Your task to perform on an android device: find photos in the google photos app Image 0: 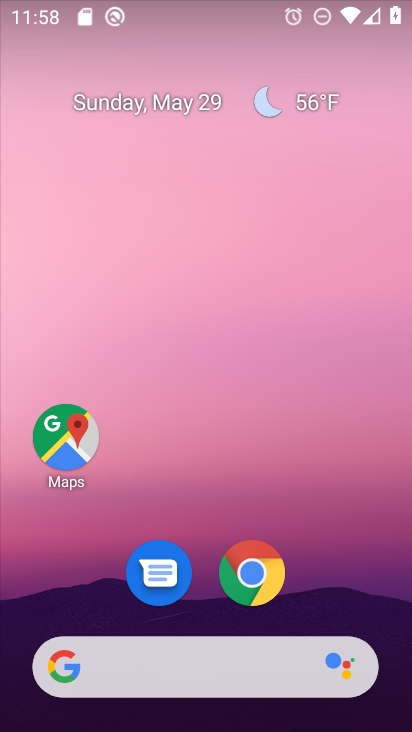
Step 0: drag from (342, 667) to (377, 43)
Your task to perform on an android device: find photos in the google photos app Image 1: 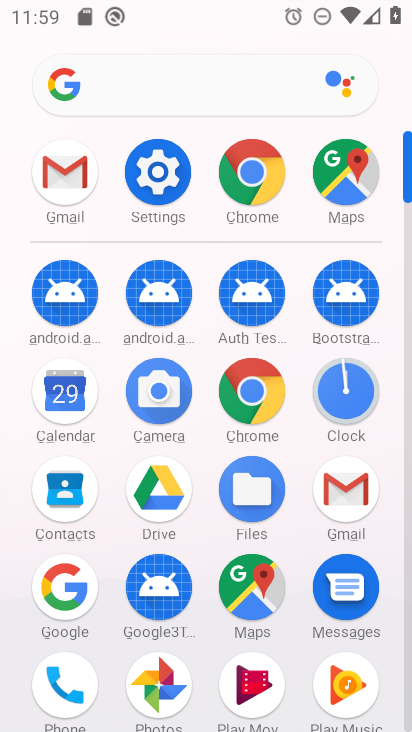
Step 1: click (158, 679)
Your task to perform on an android device: find photos in the google photos app Image 2: 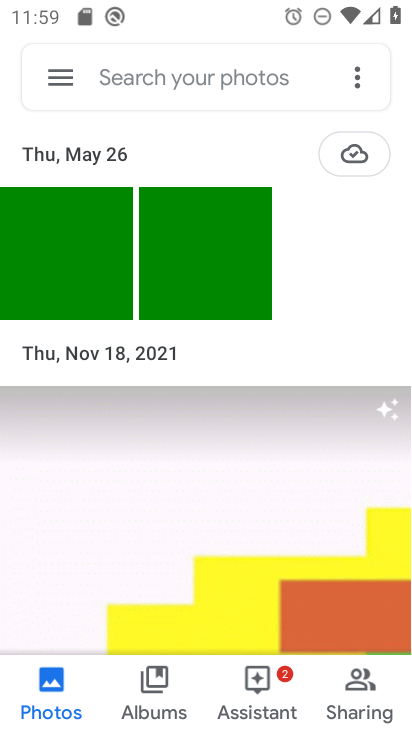
Step 2: task complete